Your task to perform on an android device: Go to accessibility settings Image 0: 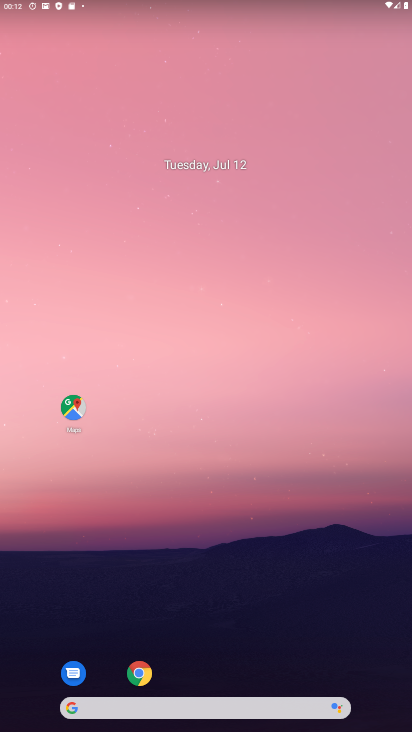
Step 0: press home button
Your task to perform on an android device: Go to accessibility settings Image 1: 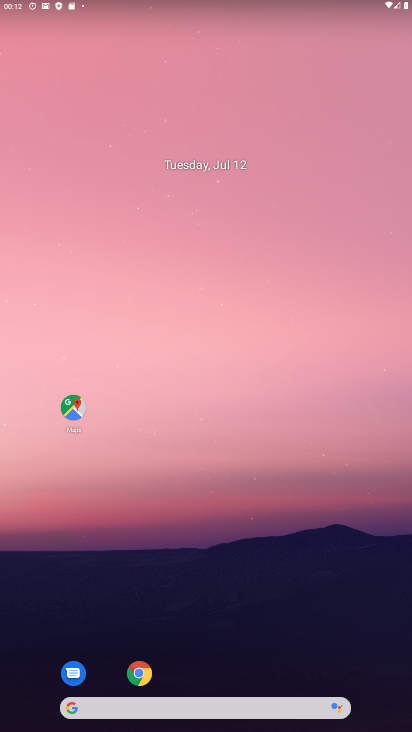
Step 1: drag from (266, 661) to (242, 199)
Your task to perform on an android device: Go to accessibility settings Image 2: 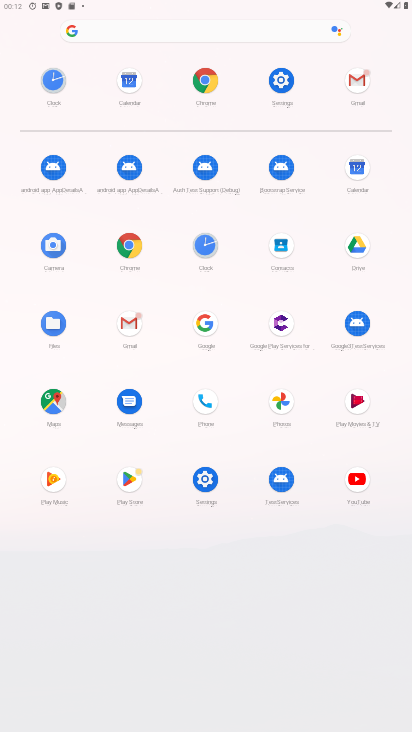
Step 2: click (275, 75)
Your task to perform on an android device: Go to accessibility settings Image 3: 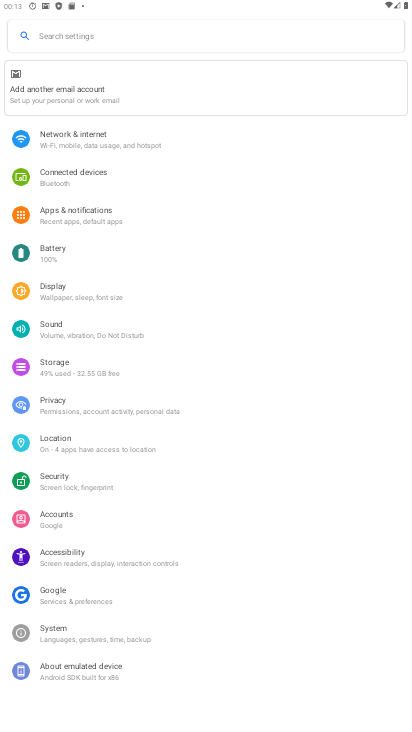
Step 3: click (46, 564)
Your task to perform on an android device: Go to accessibility settings Image 4: 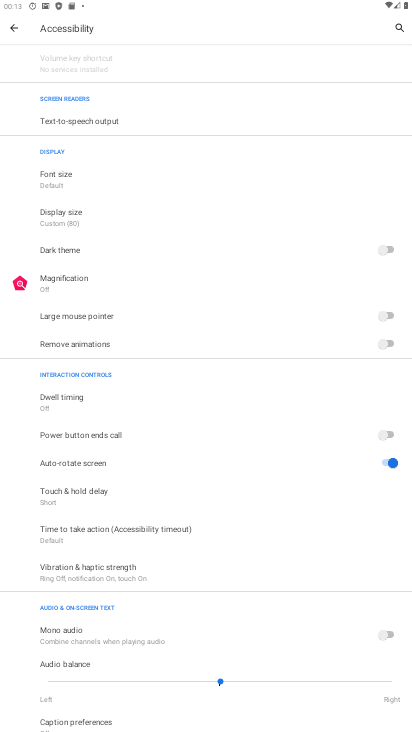
Step 4: task complete